Your task to perform on an android device: open the mobile data screen to see how much data has been used Image 0: 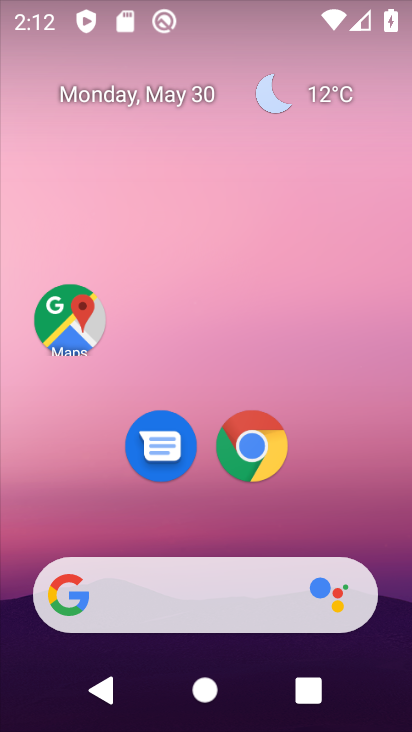
Step 0: drag from (335, 500) to (286, 8)
Your task to perform on an android device: open the mobile data screen to see how much data has been used Image 1: 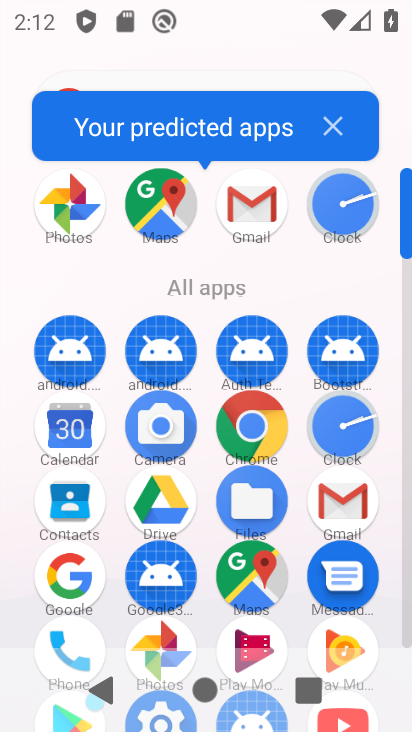
Step 1: drag from (298, 471) to (276, 234)
Your task to perform on an android device: open the mobile data screen to see how much data has been used Image 2: 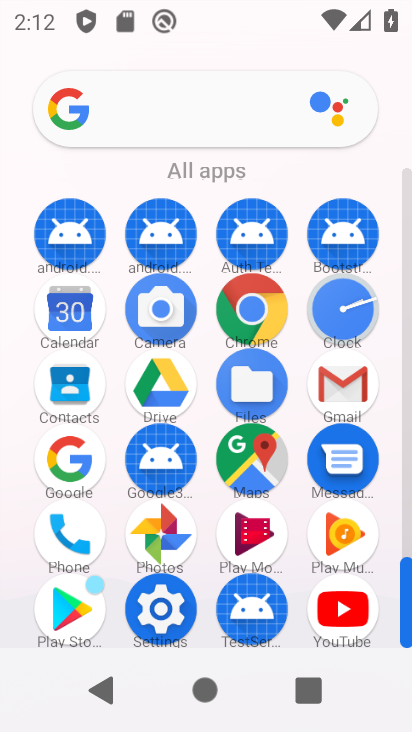
Step 2: click (160, 609)
Your task to perform on an android device: open the mobile data screen to see how much data has been used Image 3: 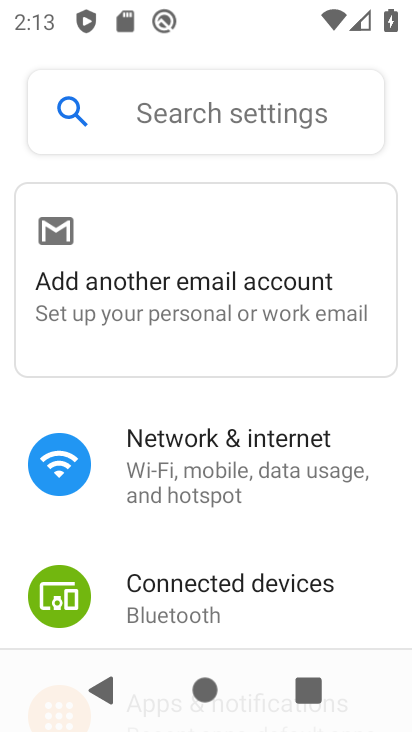
Step 3: click (203, 466)
Your task to perform on an android device: open the mobile data screen to see how much data has been used Image 4: 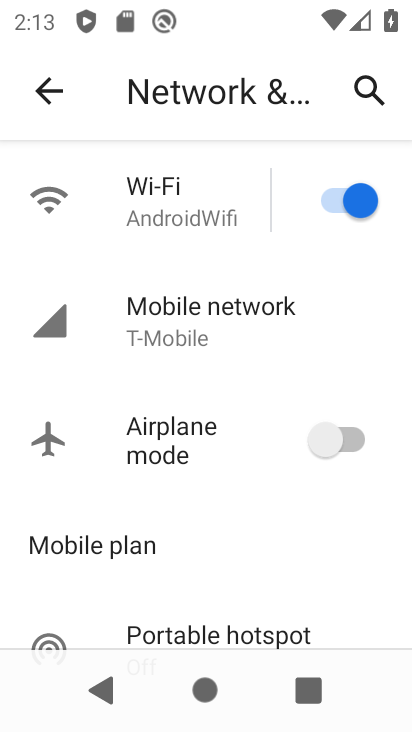
Step 4: click (213, 303)
Your task to perform on an android device: open the mobile data screen to see how much data has been used Image 5: 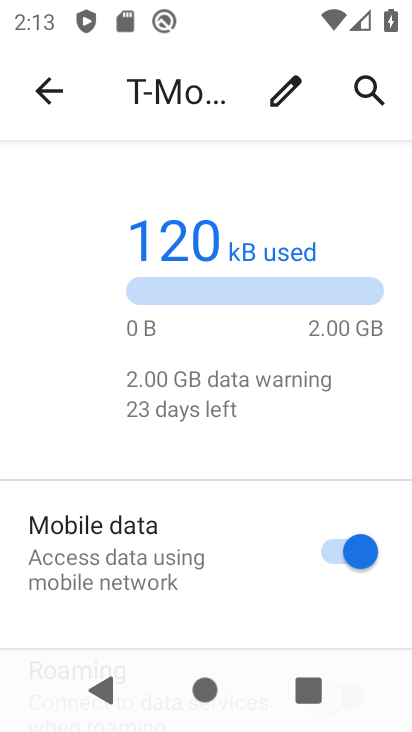
Step 5: task complete